Your task to perform on an android device: see tabs open on other devices in the chrome app Image 0: 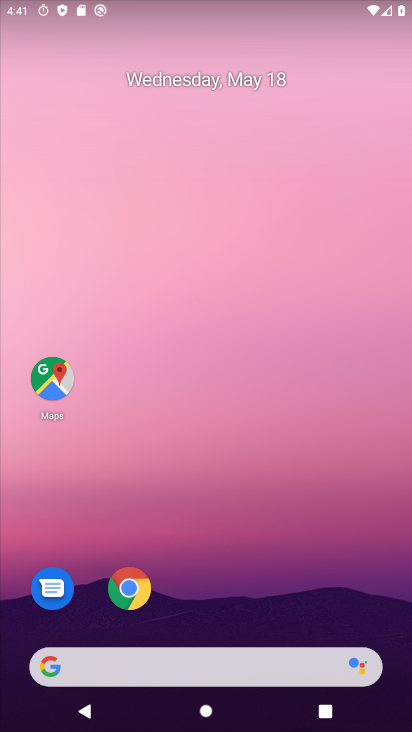
Step 0: press home button
Your task to perform on an android device: see tabs open on other devices in the chrome app Image 1: 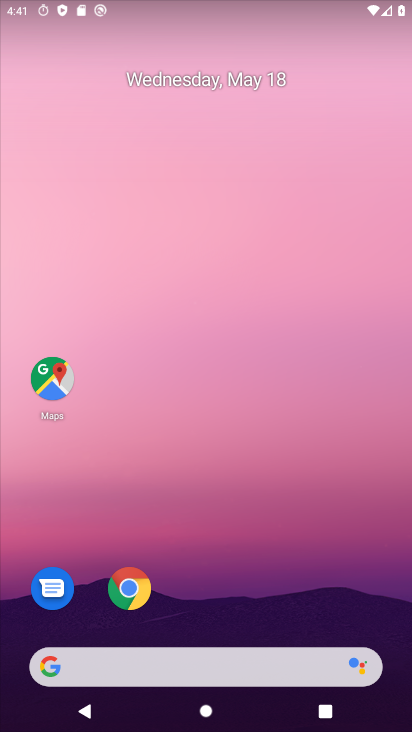
Step 1: click (125, 592)
Your task to perform on an android device: see tabs open on other devices in the chrome app Image 2: 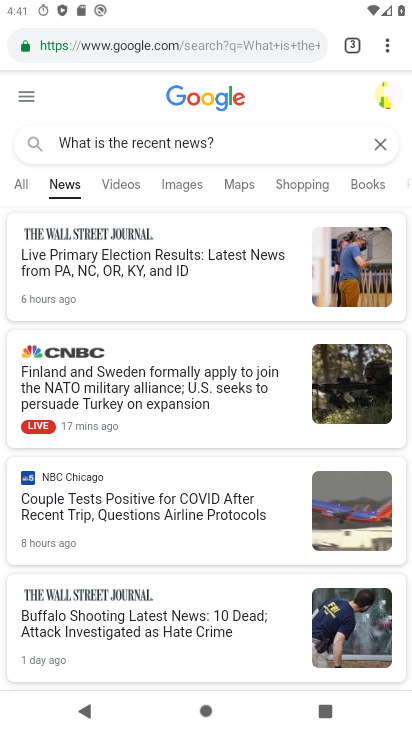
Step 2: drag from (384, 46) to (214, 220)
Your task to perform on an android device: see tabs open on other devices in the chrome app Image 3: 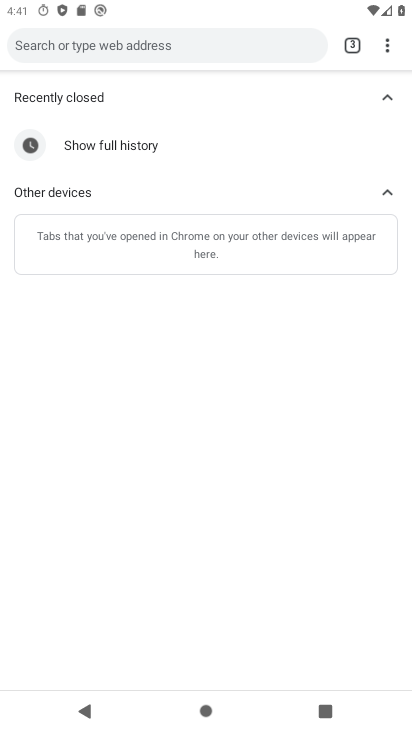
Step 3: click (69, 193)
Your task to perform on an android device: see tabs open on other devices in the chrome app Image 4: 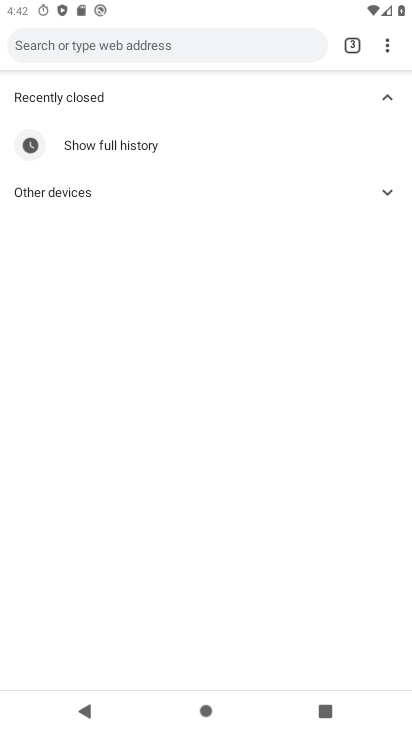
Step 4: task complete